Your task to perform on an android device: When is my next appointment? Image 0: 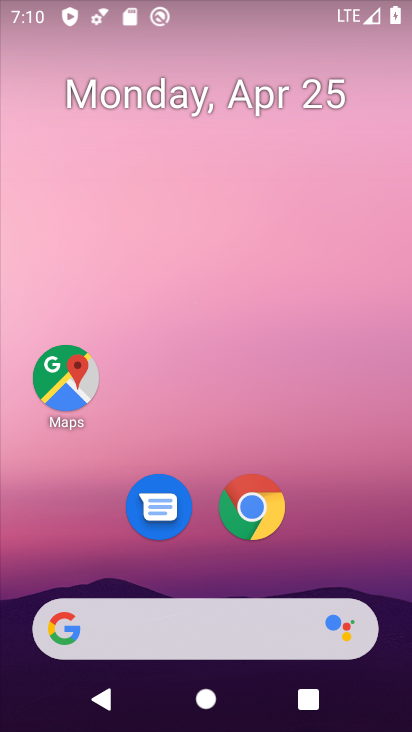
Step 0: drag from (344, 155) to (348, 74)
Your task to perform on an android device: When is my next appointment? Image 1: 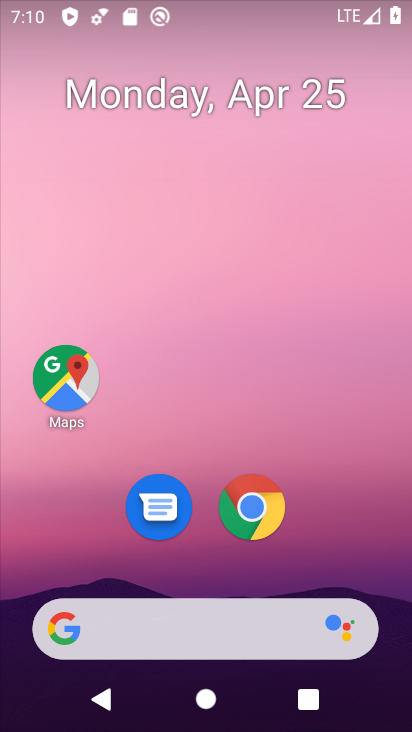
Step 1: drag from (332, 533) to (308, 0)
Your task to perform on an android device: When is my next appointment? Image 2: 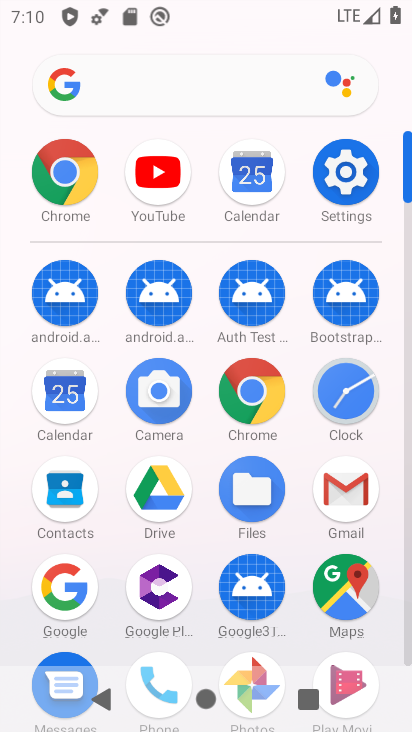
Step 2: click (85, 387)
Your task to perform on an android device: When is my next appointment? Image 3: 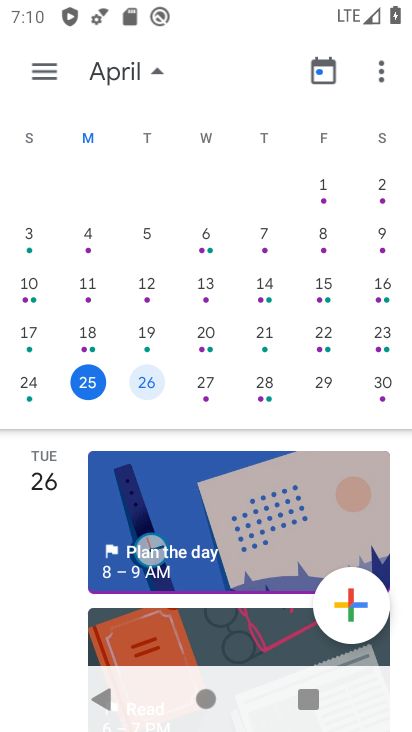
Step 3: click (140, 80)
Your task to perform on an android device: When is my next appointment? Image 4: 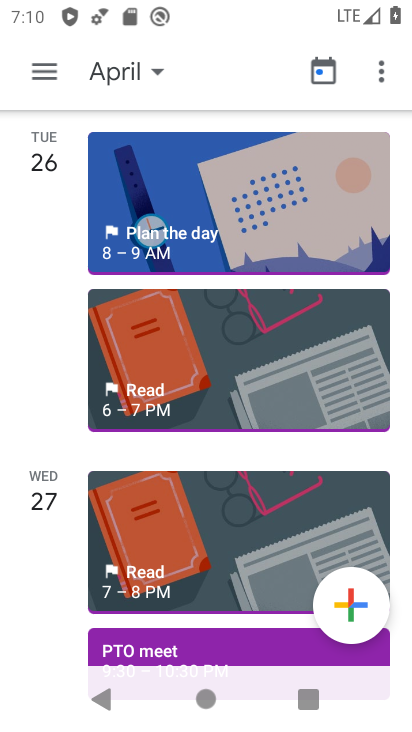
Step 4: task complete